Your task to perform on an android device: change keyboard looks Image 0: 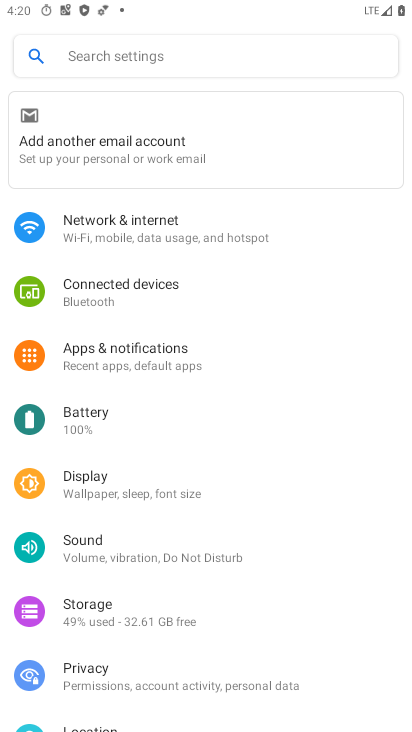
Step 0: drag from (199, 644) to (207, 253)
Your task to perform on an android device: change keyboard looks Image 1: 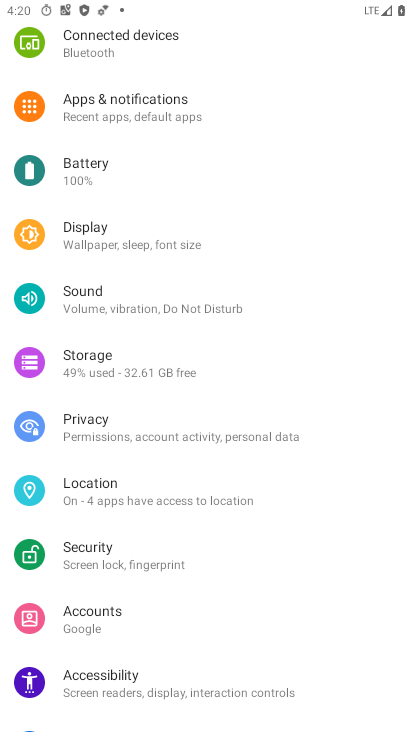
Step 1: drag from (224, 643) to (233, 226)
Your task to perform on an android device: change keyboard looks Image 2: 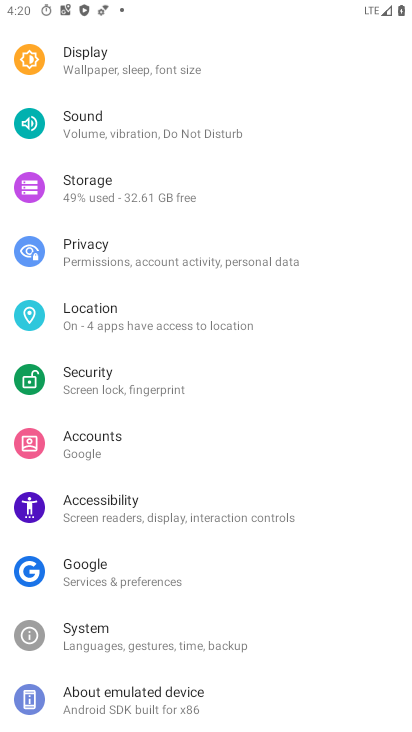
Step 2: click (190, 639)
Your task to perform on an android device: change keyboard looks Image 3: 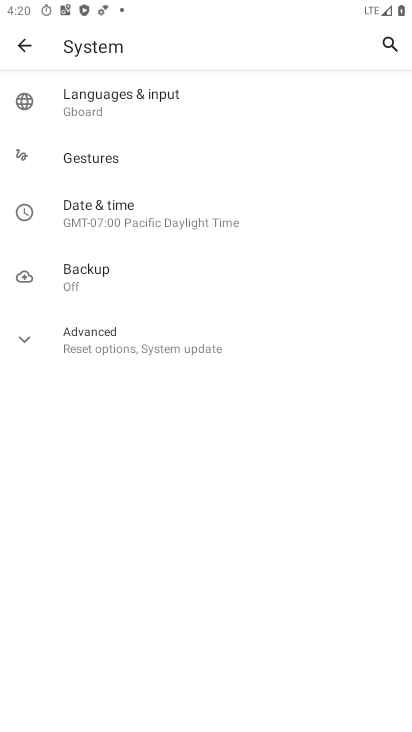
Step 3: click (133, 103)
Your task to perform on an android device: change keyboard looks Image 4: 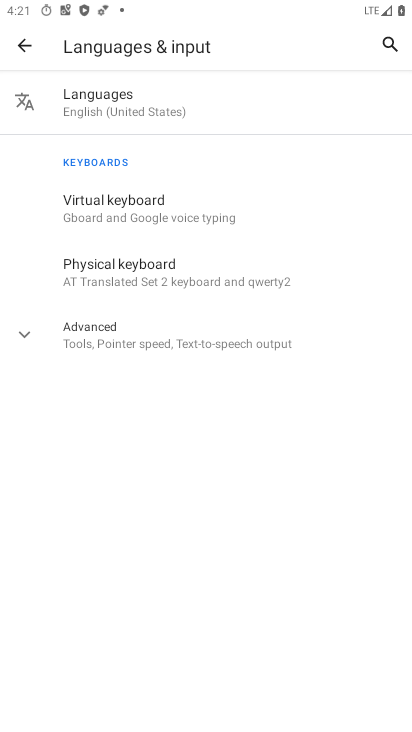
Step 4: click (149, 209)
Your task to perform on an android device: change keyboard looks Image 5: 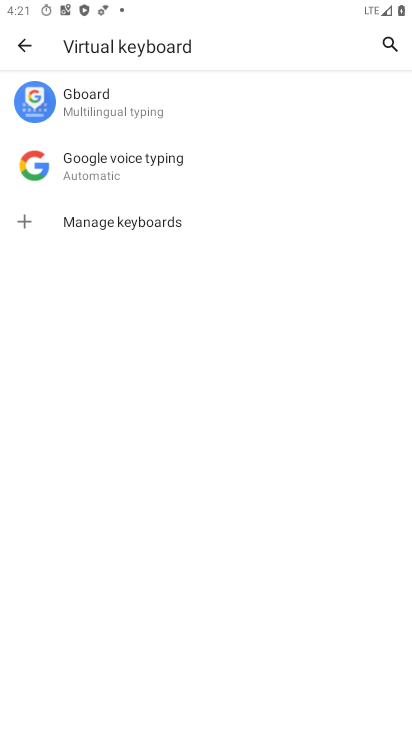
Step 5: click (111, 111)
Your task to perform on an android device: change keyboard looks Image 6: 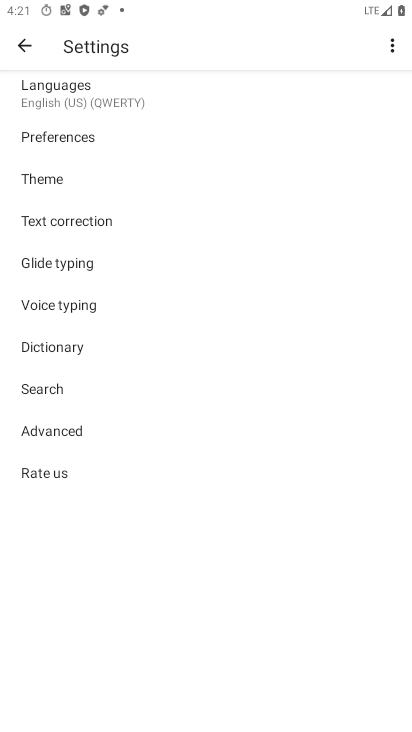
Step 6: click (64, 185)
Your task to perform on an android device: change keyboard looks Image 7: 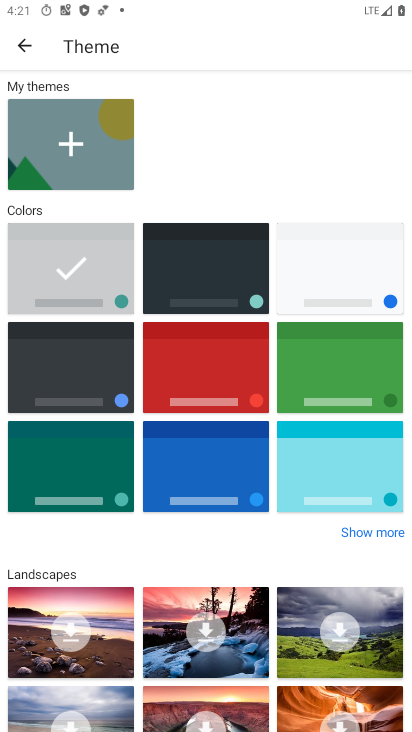
Step 7: click (206, 273)
Your task to perform on an android device: change keyboard looks Image 8: 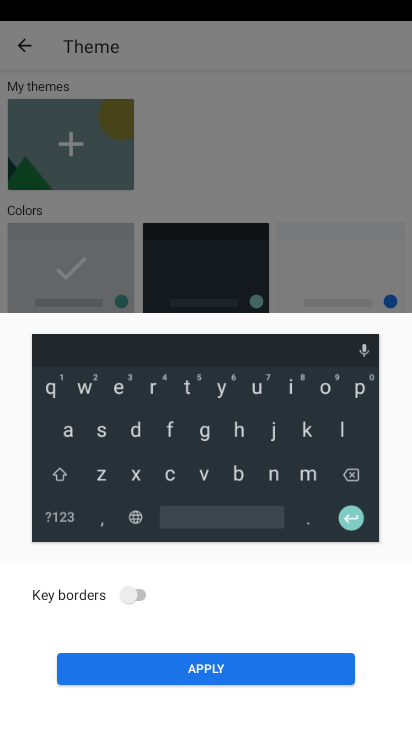
Step 8: click (313, 666)
Your task to perform on an android device: change keyboard looks Image 9: 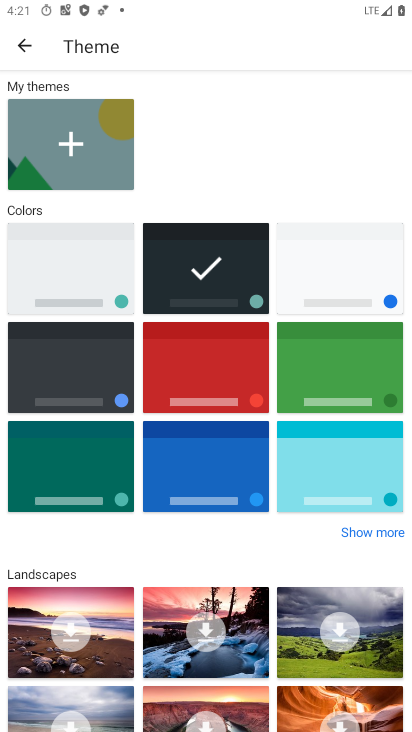
Step 9: task complete